Your task to perform on an android device: Go to Google Image 0: 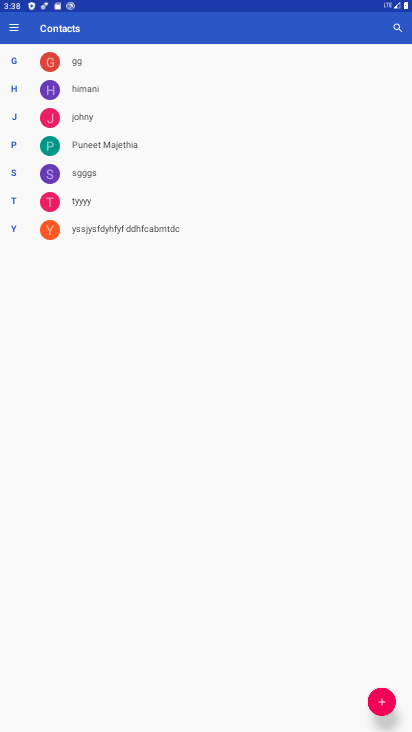
Step 0: press home button
Your task to perform on an android device: Go to Google Image 1: 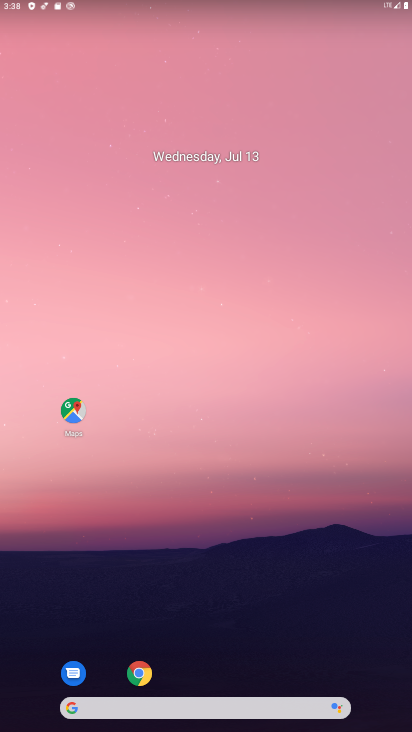
Step 1: drag from (203, 714) to (235, 153)
Your task to perform on an android device: Go to Google Image 2: 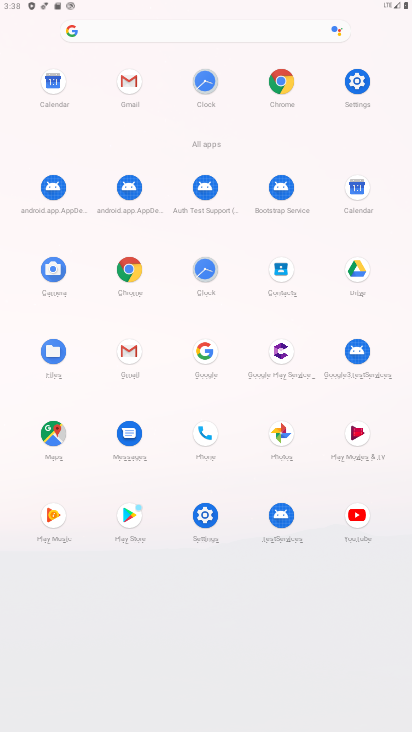
Step 2: click (203, 350)
Your task to perform on an android device: Go to Google Image 3: 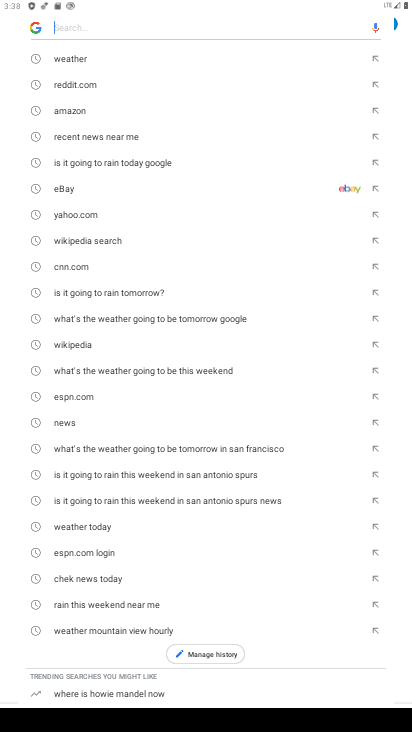
Step 3: task complete